Your task to perform on an android device: Open calendar and show me the fourth week of next month Image 0: 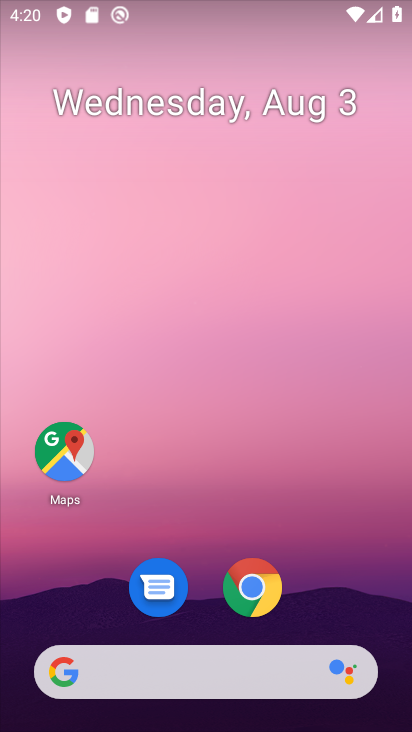
Step 0: drag from (37, 625) to (408, 310)
Your task to perform on an android device: Open calendar and show me the fourth week of next month Image 1: 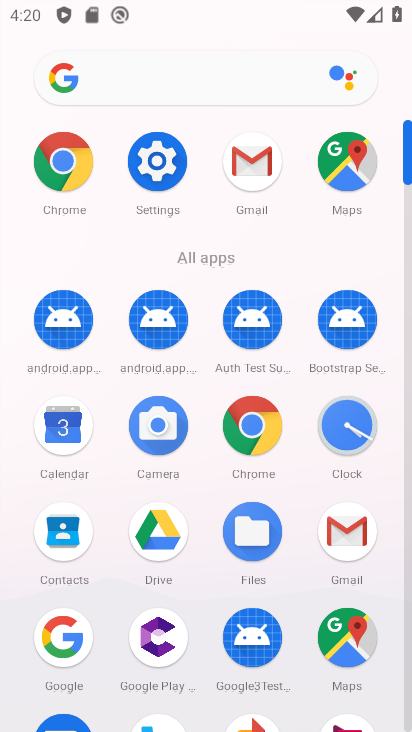
Step 1: click (67, 442)
Your task to perform on an android device: Open calendar and show me the fourth week of next month Image 2: 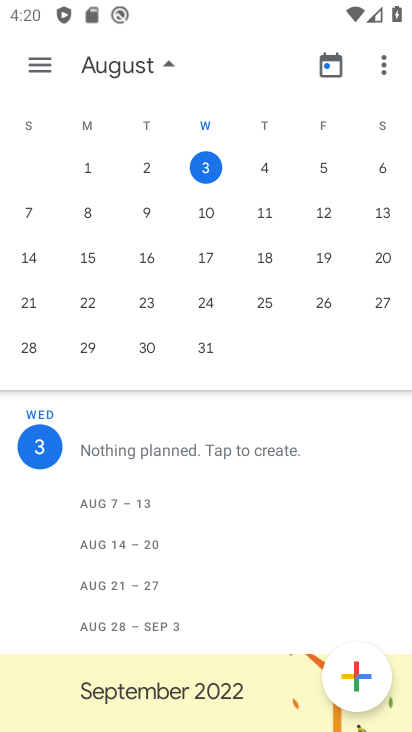
Step 2: drag from (393, 177) to (2, 123)
Your task to perform on an android device: Open calendar and show me the fourth week of next month Image 3: 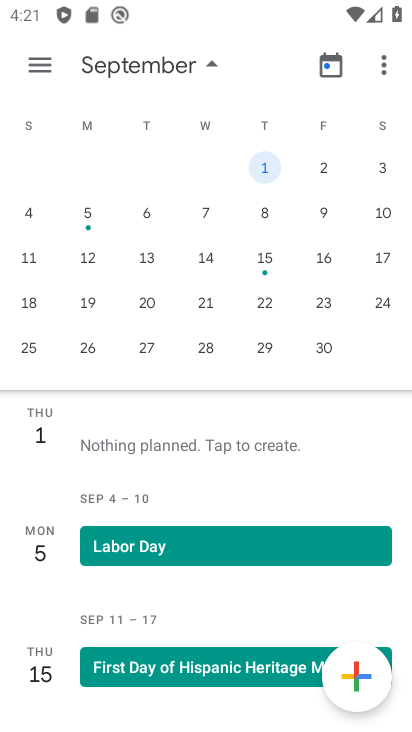
Step 3: click (91, 292)
Your task to perform on an android device: Open calendar and show me the fourth week of next month Image 4: 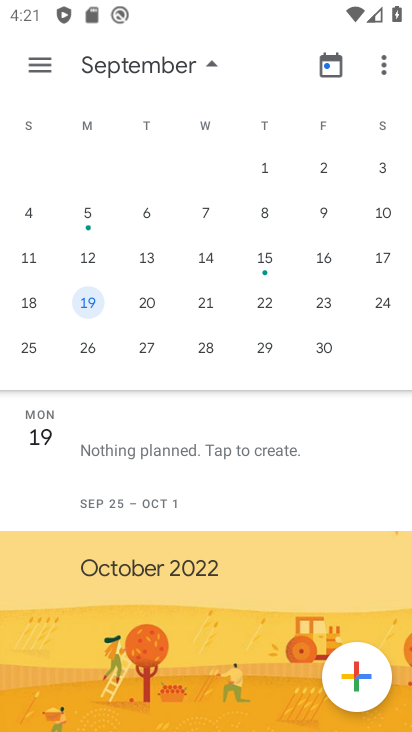
Step 4: task complete